Your task to perform on an android device: Go to privacy settings Image 0: 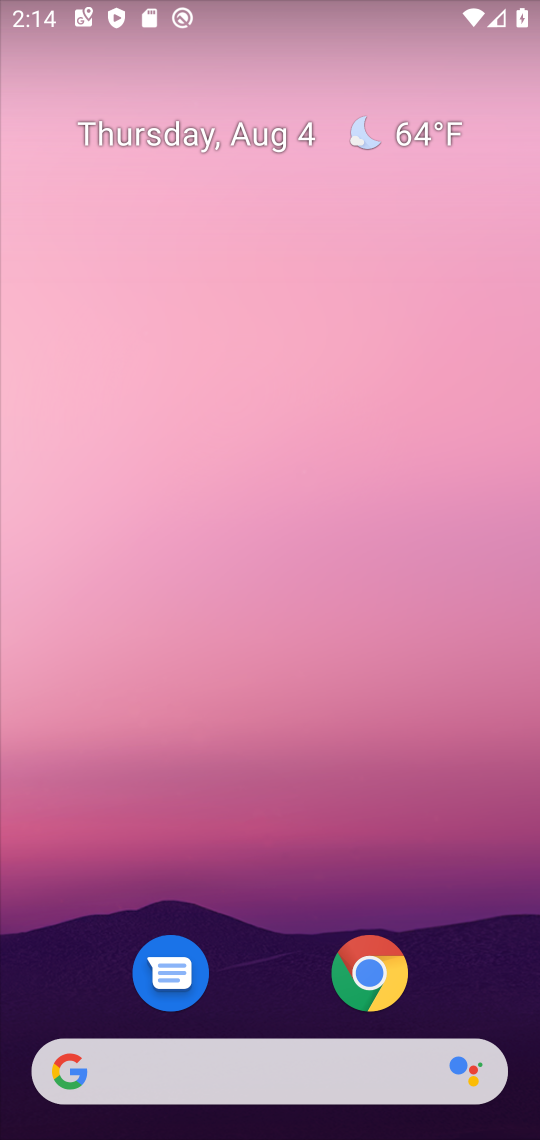
Step 0: drag from (277, 1000) to (171, 118)
Your task to perform on an android device: Go to privacy settings Image 1: 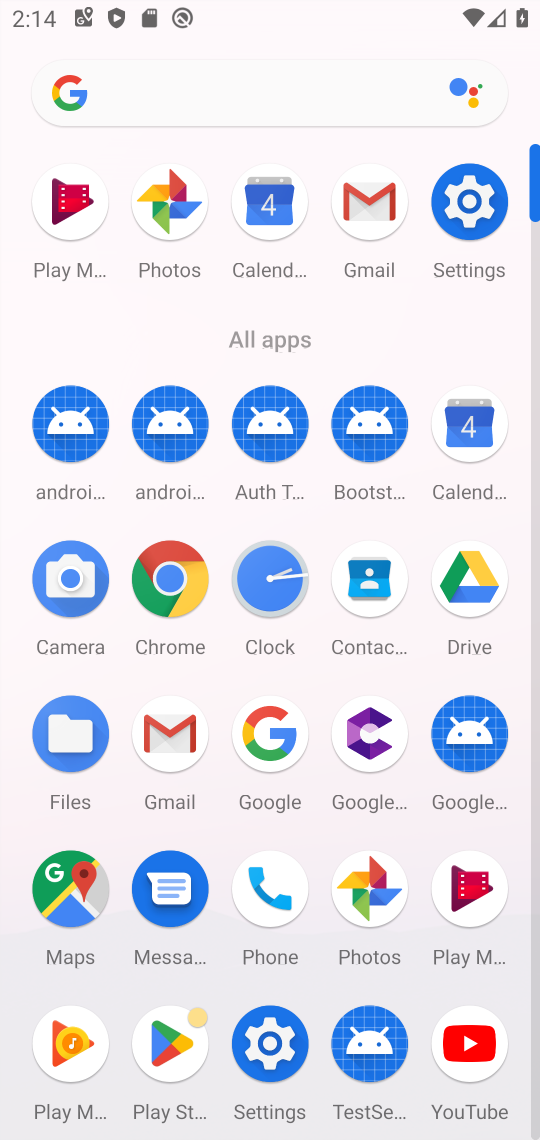
Step 1: click (457, 216)
Your task to perform on an android device: Go to privacy settings Image 2: 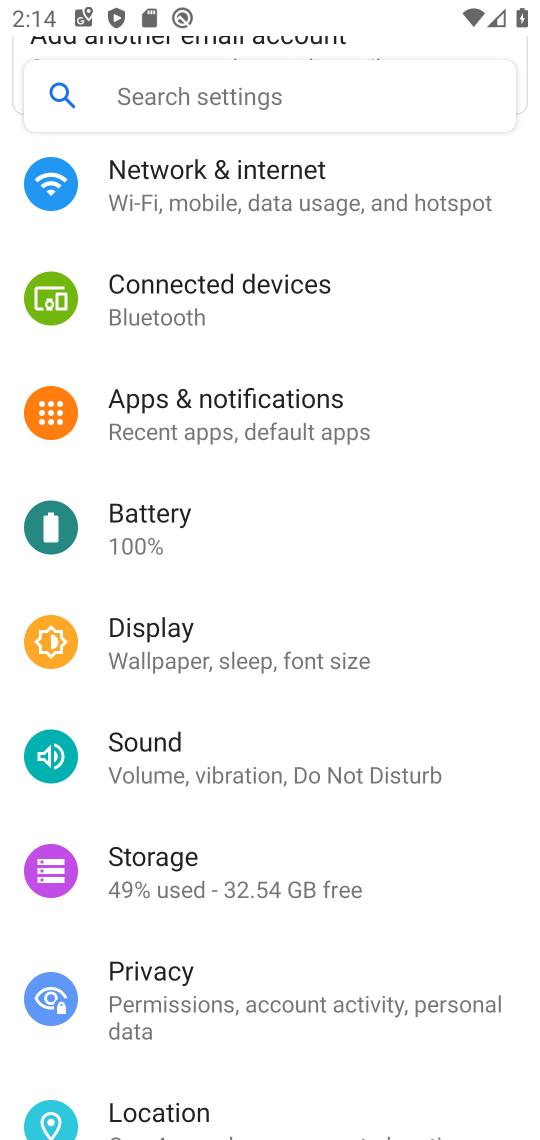
Step 2: click (198, 994)
Your task to perform on an android device: Go to privacy settings Image 3: 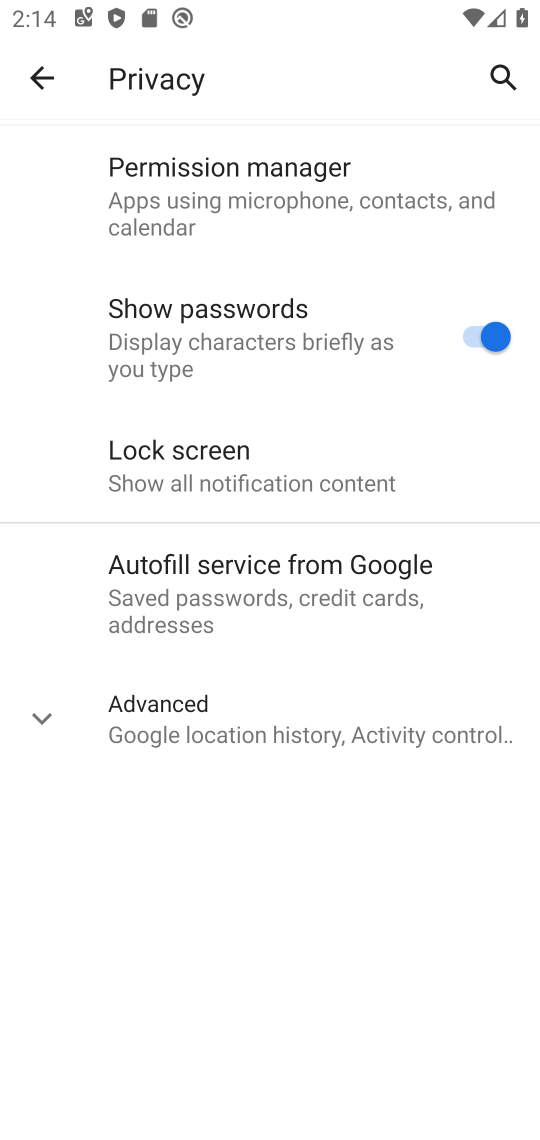
Step 3: click (196, 733)
Your task to perform on an android device: Go to privacy settings Image 4: 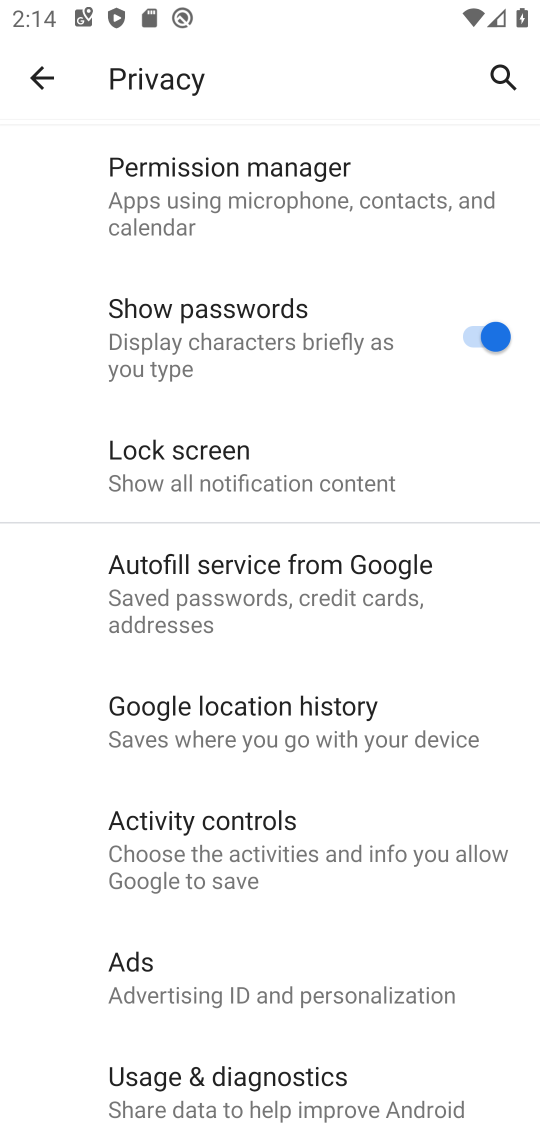
Step 4: task complete